Your task to perform on an android device: Open calendar and show me the third week of next month Image 0: 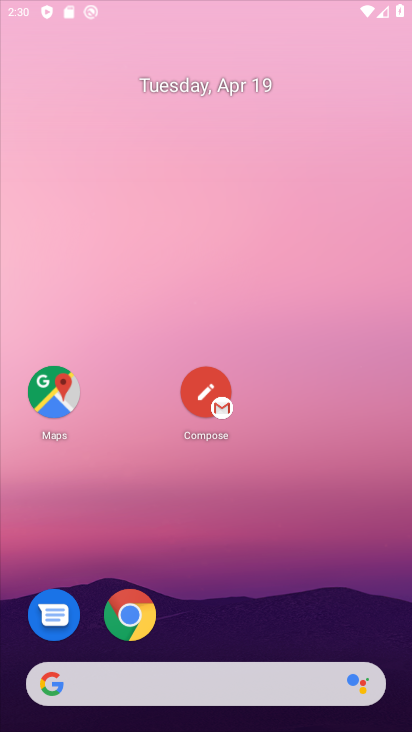
Step 0: click (268, 19)
Your task to perform on an android device: Open calendar and show me the third week of next month Image 1: 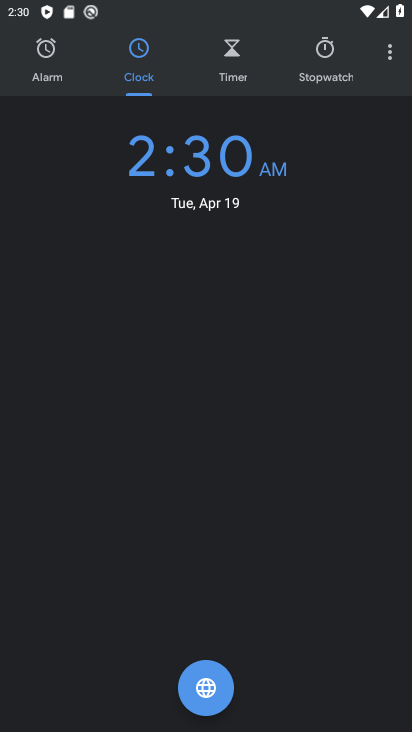
Step 1: press home button
Your task to perform on an android device: Open calendar and show me the third week of next month Image 2: 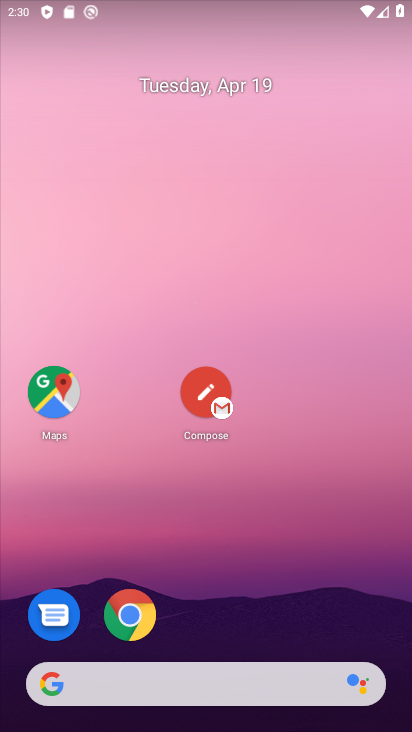
Step 2: drag from (260, 553) to (282, 34)
Your task to perform on an android device: Open calendar and show me the third week of next month Image 3: 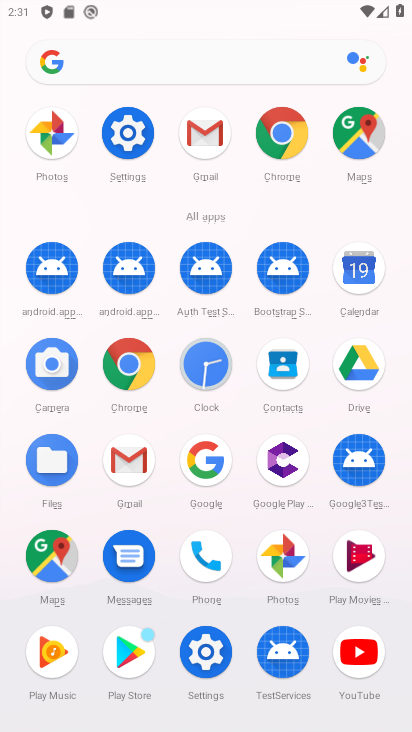
Step 3: click (357, 276)
Your task to perform on an android device: Open calendar and show me the third week of next month Image 4: 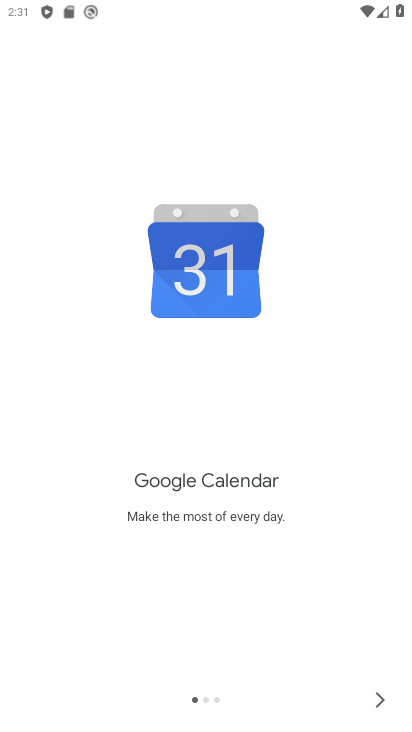
Step 4: click (383, 699)
Your task to perform on an android device: Open calendar and show me the third week of next month Image 5: 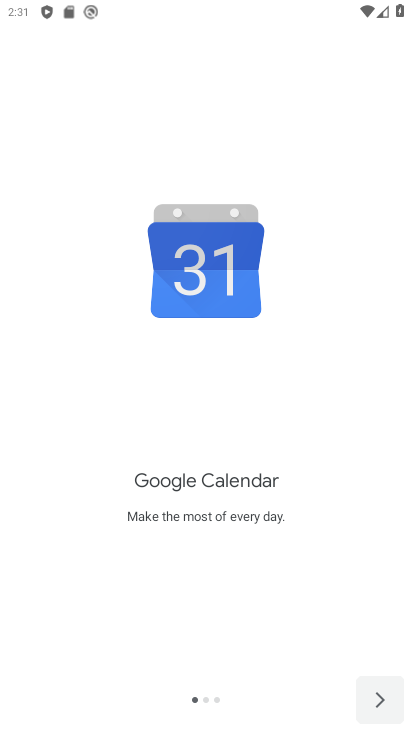
Step 5: click (380, 700)
Your task to perform on an android device: Open calendar and show me the third week of next month Image 6: 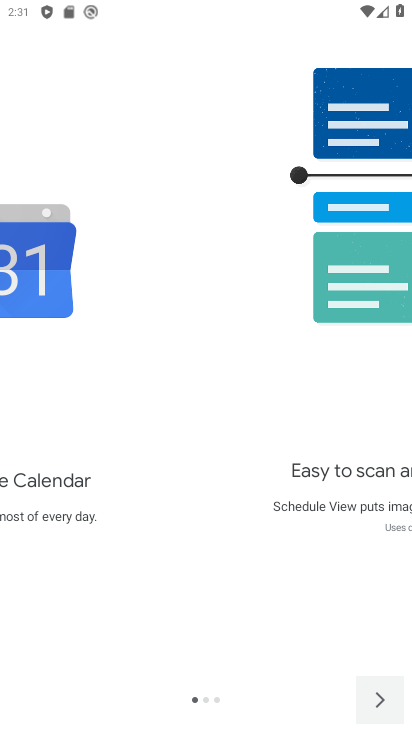
Step 6: click (380, 700)
Your task to perform on an android device: Open calendar and show me the third week of next month Image 7: 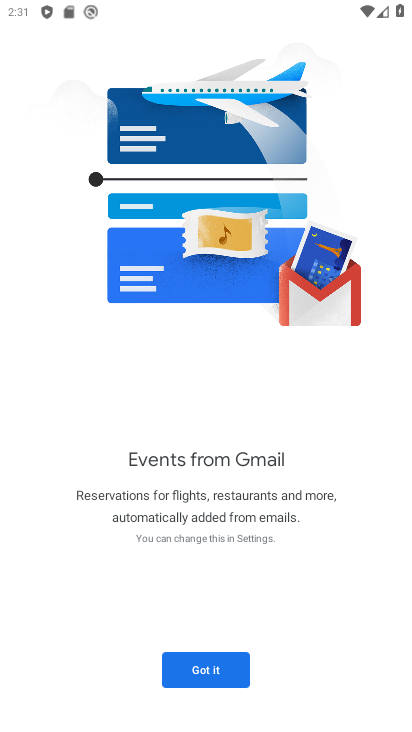
Step 7: click (188, 667)
Your task to perform on an android device: Open calendar and show me the third week of next month Image 8: 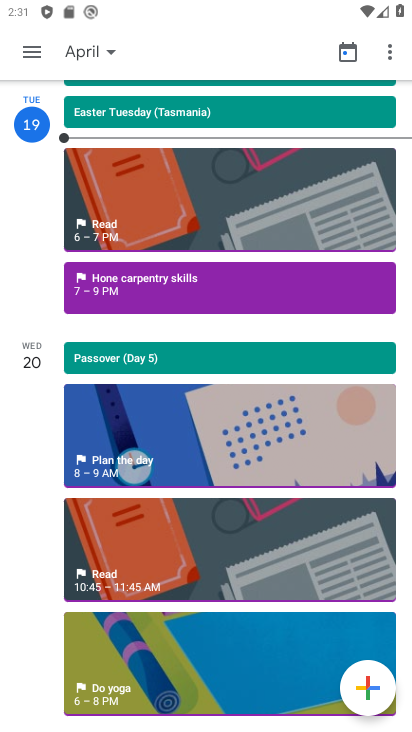
Step 8: click (109, 53)
Your task to perform on an android device: Open calendar and show me the third week of next month Image 9: 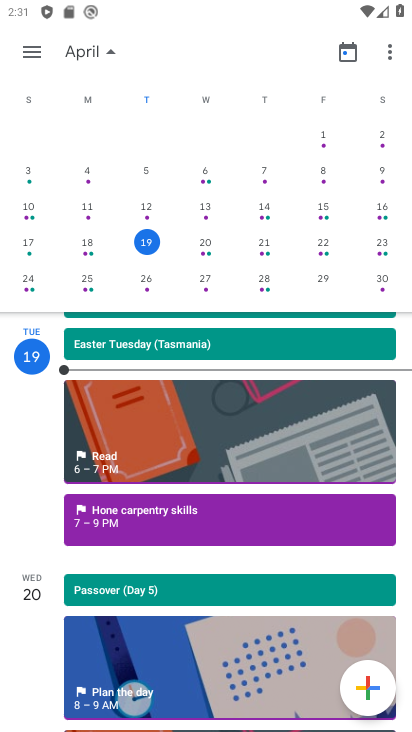
Step 9: click (265, 241)
Your task to perform on an android device: Open calendar and show me the third week of next month Image 10: 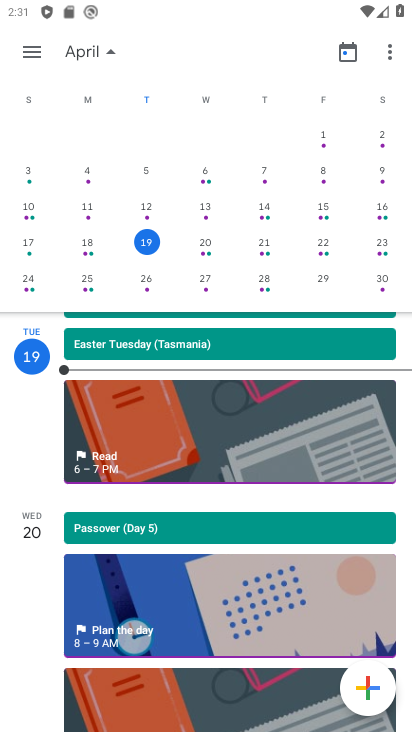
Step 10: drag from (337, 191) to (47, 158)
Your task to perform on an android device: Open calendar and show me the third week of next month Image 11: 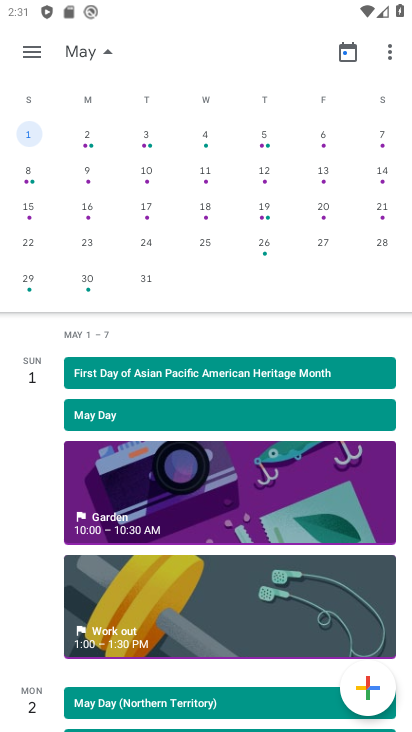
Step 11: click (263, 211)
Your task to perform on an android device: Open calendar and show me the third week of next month Image 12: 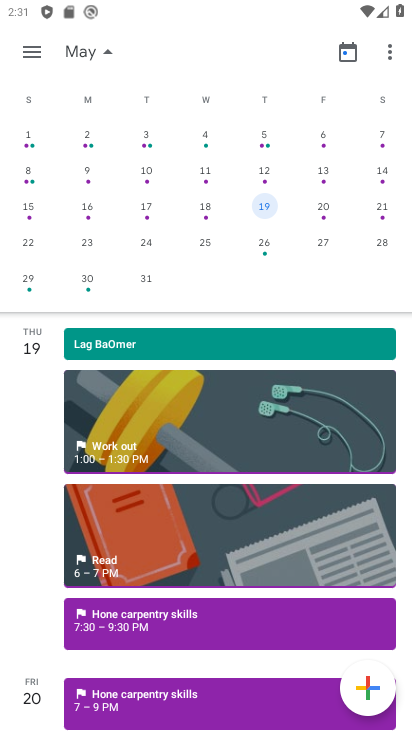
Step 12: click (29, 55)
Your task to perform on an android device: Open calendar and show me the third week of next month Image 13: 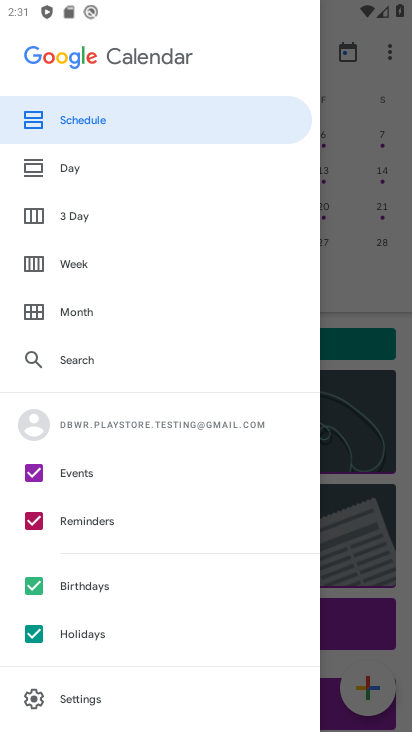
Step 13: click (95, 264)
Your task to perform on an android device: Open calendar and show me the third week of next month Image 14: 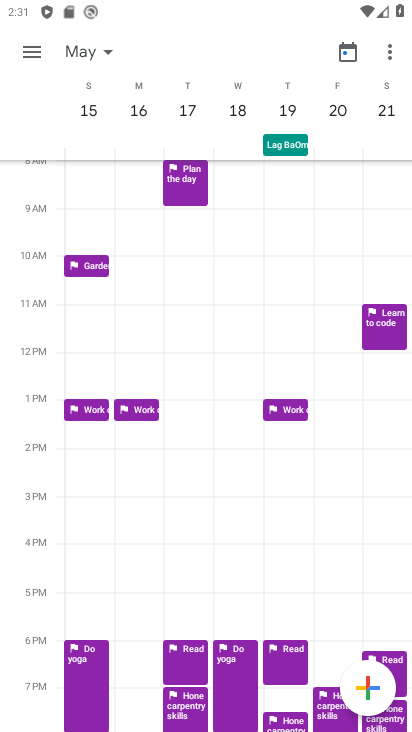
Step 14: task complete